Your task to perform on an android device: set the timer Image 0: 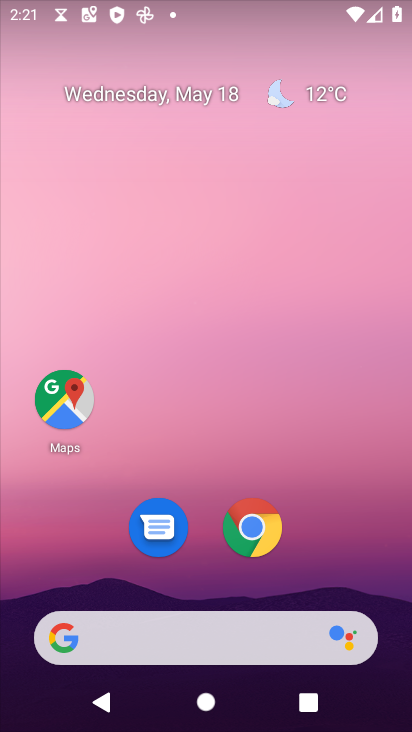
Step 0: drag from (351, 572) to (169, 14)
Your task to perform on an android device: set the timer Image 1: 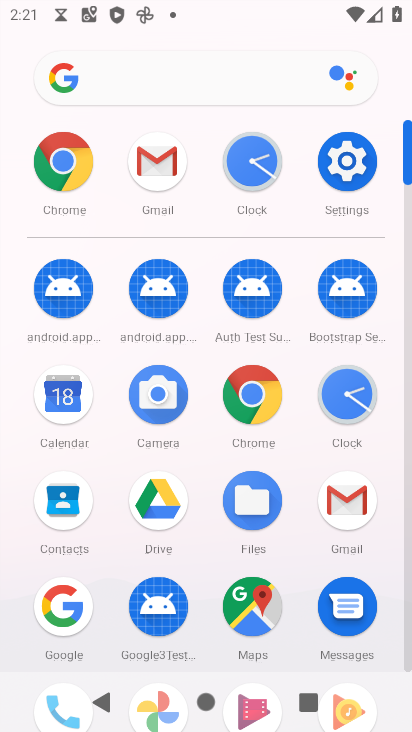
Step 1: click (250, 163)
Your task to perform on an android device: set the timer Image 2: 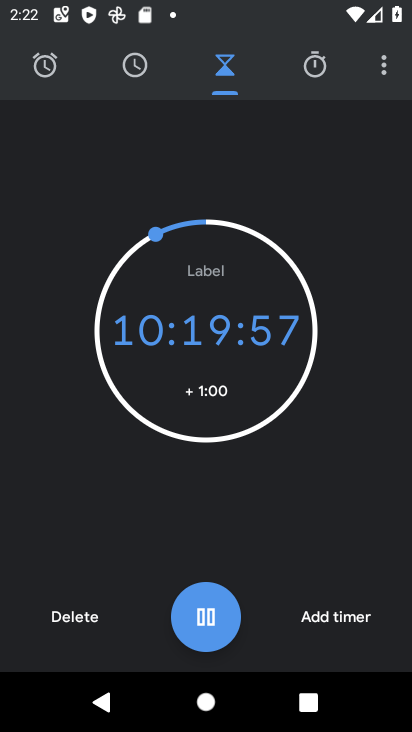
Step 2: task complete